Your task to perform on an android device: open a new tab in the chrome app Image 0: 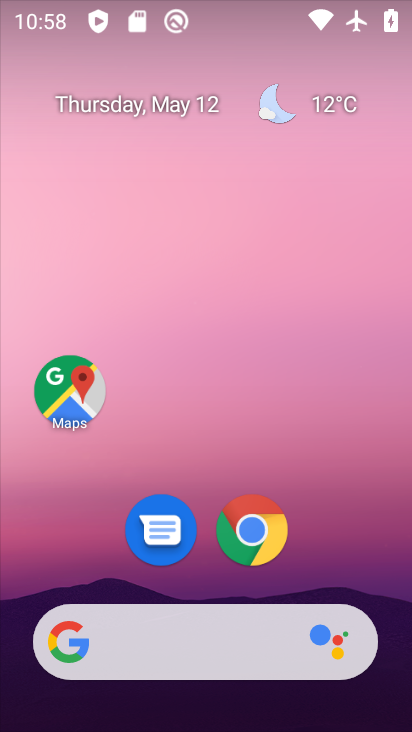
Step 0: click (254, 536)
Your task to perform on an android device: open a new tab in the chrome app Image 1: 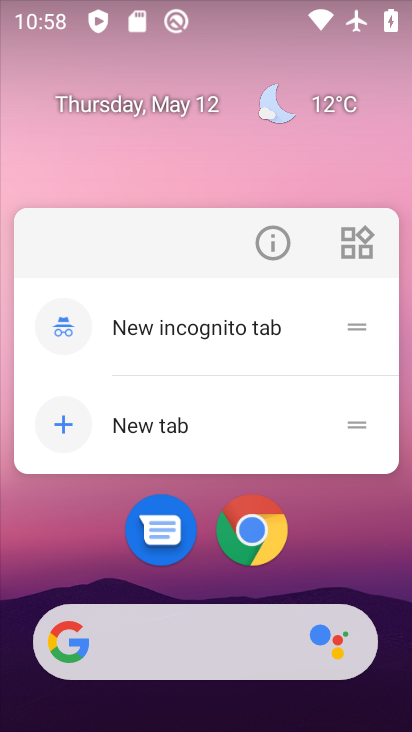
Step 1: click (265, 538)
Your task to perform on an android device: open a new tab in the chrome app Image 2: 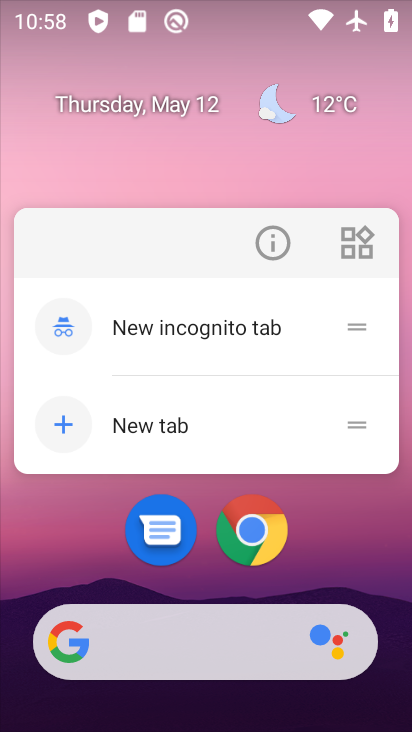
Step 2: click (251, 533)
Your task to perform on an android device: open a new tab in the chrome app Image 3: 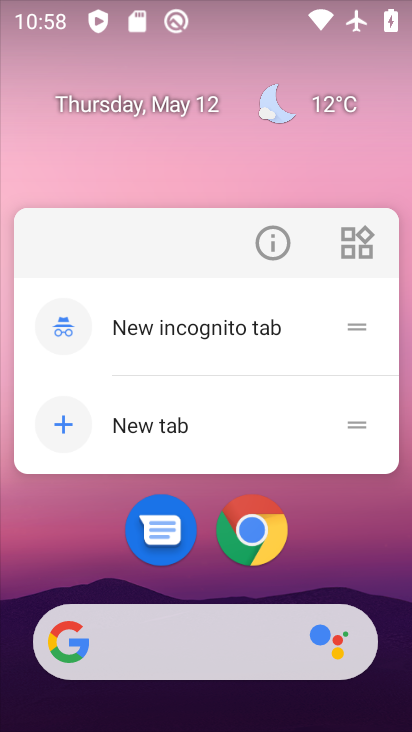
Step 3: click (251, 542)
Your task to perform on an android device: open a new tab in the chrome app Image 4: 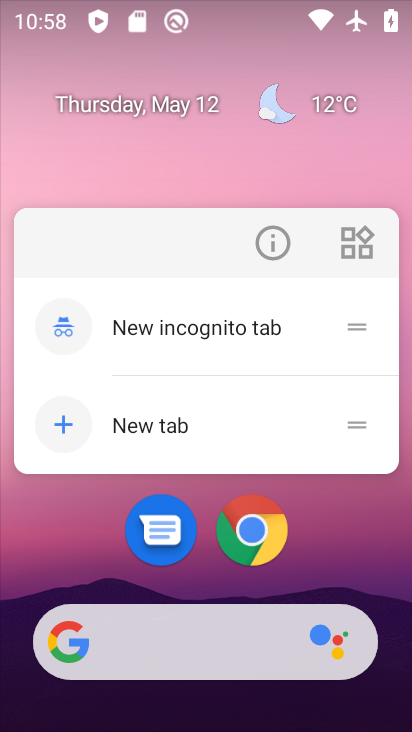
Step 4: click (251, 542)
Your task to perform on an android device: open a new tab in the chrome app Image 5: 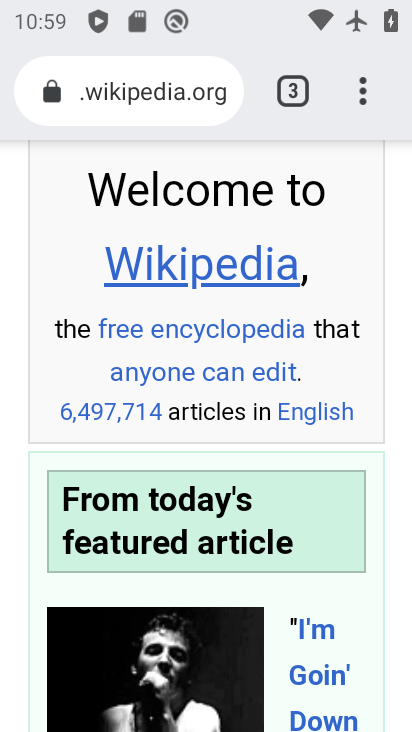
Step 5: task complete